Your task to perform on an android device: Go to CNN.com Image 0: 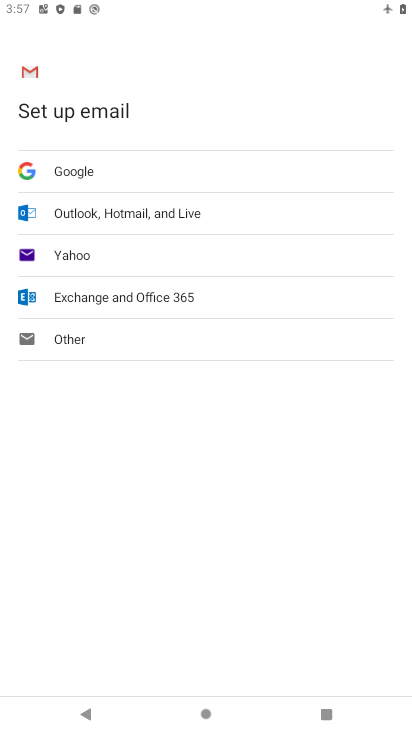
Step 0: press home button
Your task to perform on an android device: Go to CNN.com Image 1: 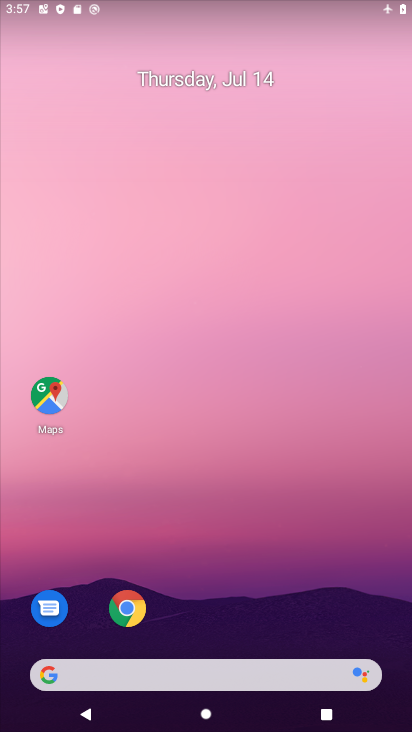
Step 1: click (138, 682)
Your task to perform on an android device: Go to CNN.com Image 2: 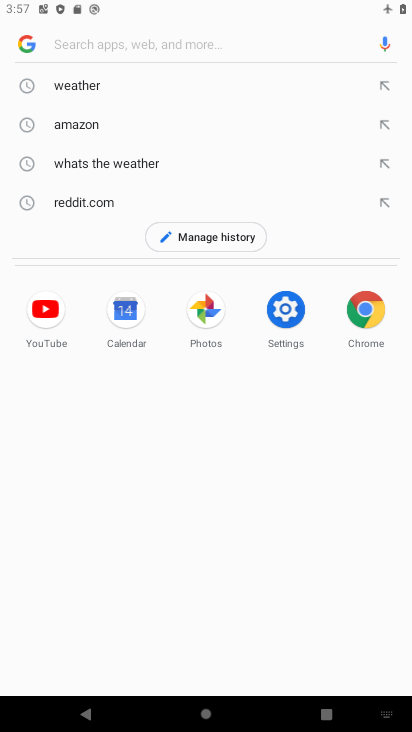
Step 2: click (191, 29)
Your task to perform on an android device: Go to CNN.com Image 3: 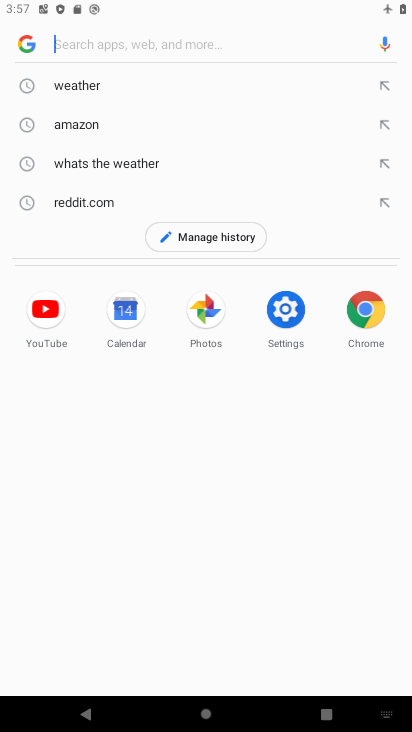
Step 3: type "CNN.com"
Your task to perform on an android device: Go to CNN.com Image 4: 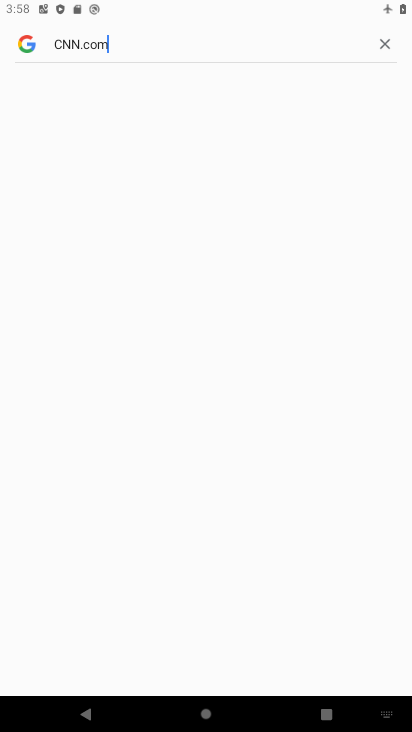
Step 4: task complete